Your task to perform on an android device: change the clock display to analog Image 0: 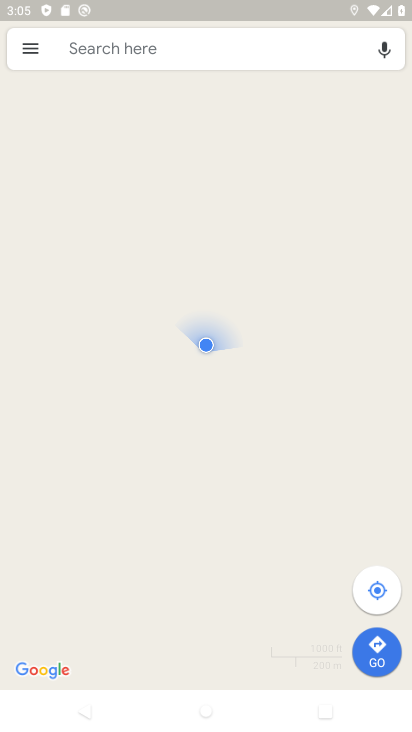
Step 0: press home button
Your task to perform on an android device: change the clock display to analog Image 1: 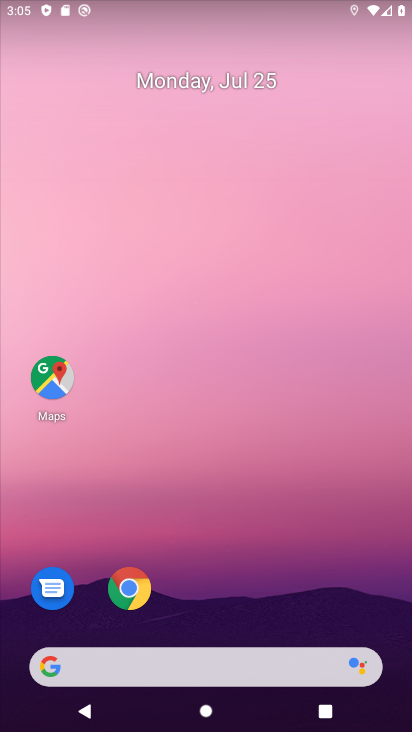
Step 1: drag from (231, 555) to (200, 3)
Your task to perform on an android device: change the clock display to analog Image 2: 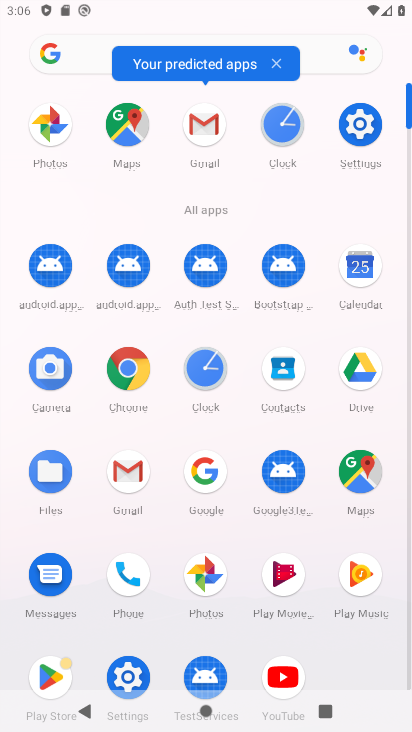
Step 2: click (275, 125)
Your task to perform on an android device: change the clock display to analog Image 3: 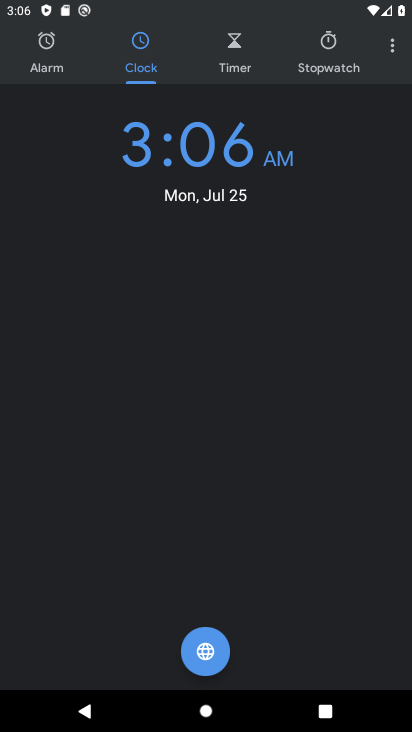
Step 3: click (391, 53)
Your task to perform on an android device: change the clock display to analog Image 4: 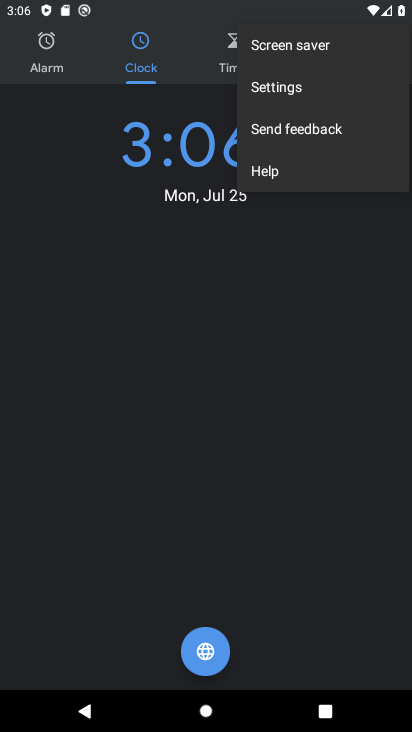
Step 4: click (286, 94)
Your task to perform on an android device: change the clock display to analog Image 5: 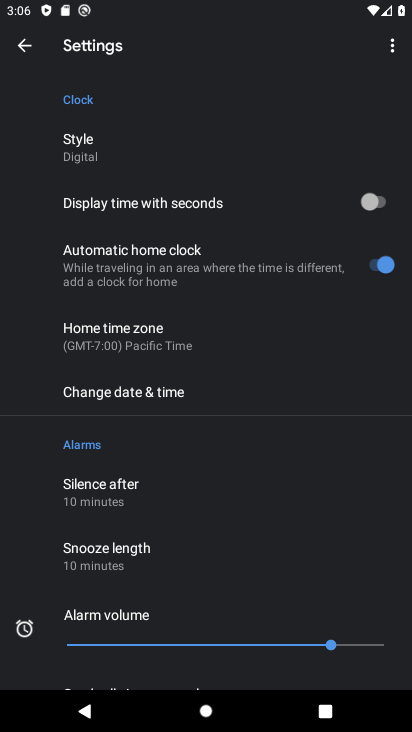
Step 5: click (93, 139)
Your task to perform on an android device: change the clock display to analog Image 6: 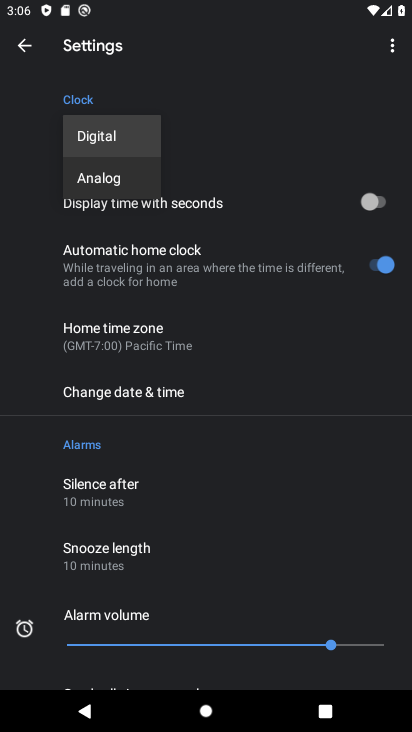
Step 6: click (93, 178)
Your task to perform on an android device: change the clock display to analog Image 7: 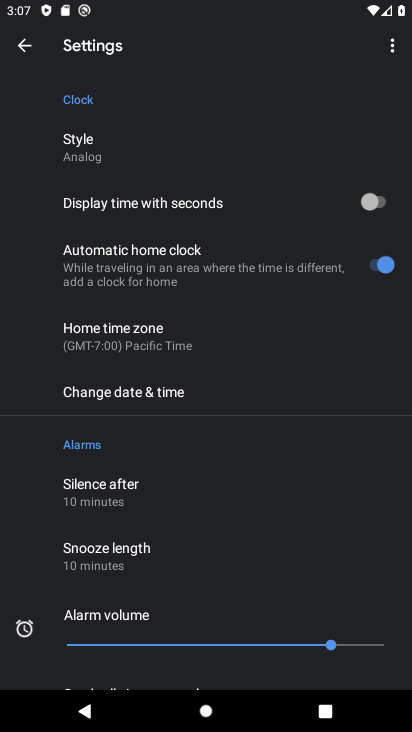
Step 7: task complete